Your task to perform on an android device: move an email to a new category in the gmail app Image 0: 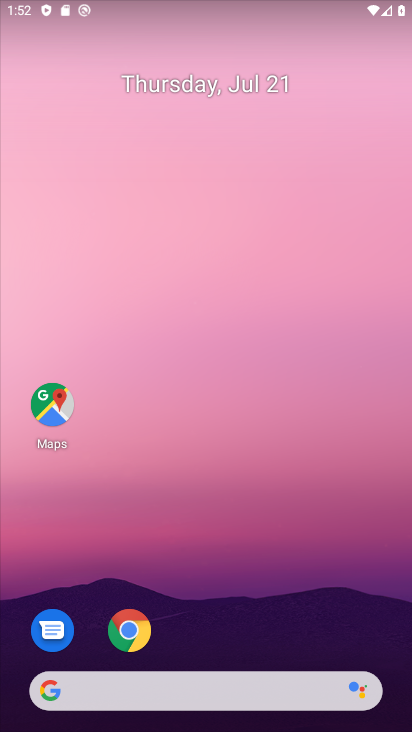
Step 0: drag from (234, 620) to (257, 36)
Your task to perform on an android device: move an email to a new category in the gmail app Image 1: 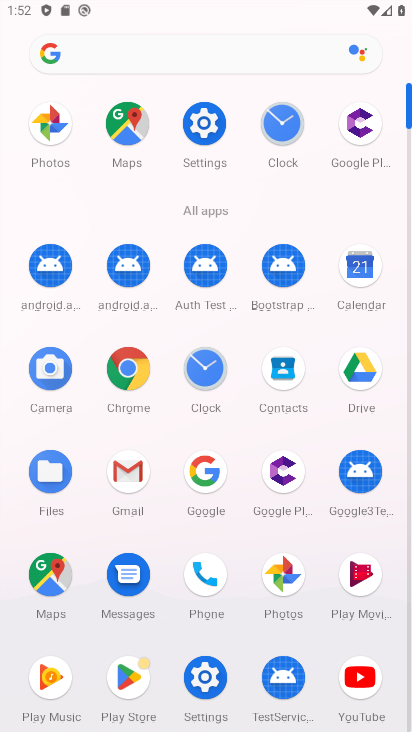
Step 1: click (143, 493)
Your task to perform on an android device: move an email to a new category in the gmail app Image 2: 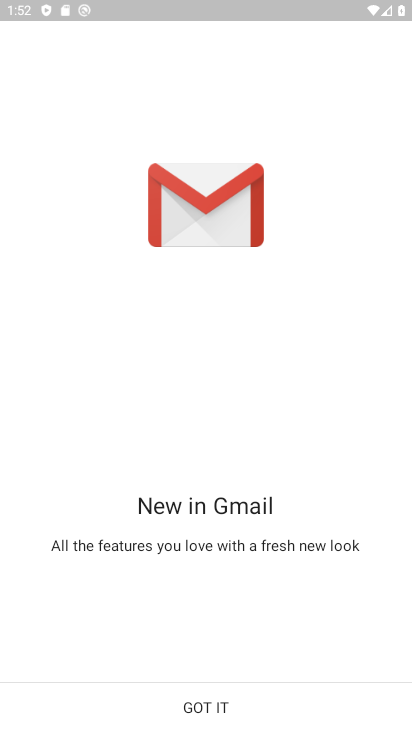
Step 2: click (138, 688)
Your task to perform on an android device: move an email to a new category in the gmail app Image 3: 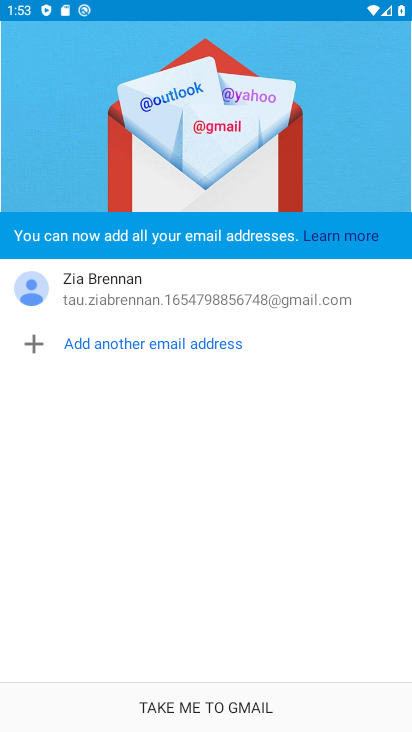
Step 3: click (241, 698)
Your task to perform on an android device: move an email to a new category in the gmail app Image 4: 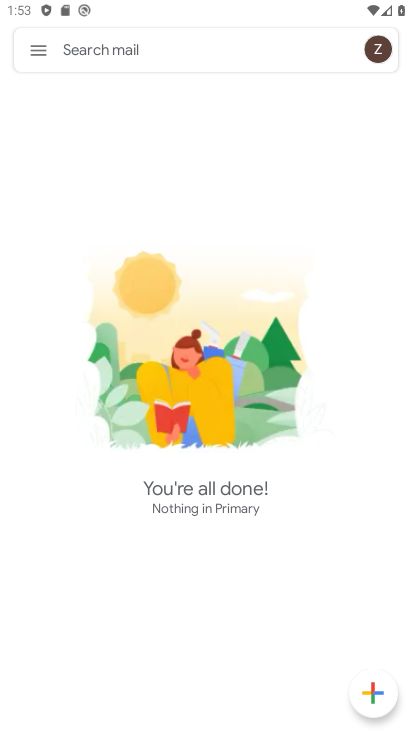
Step 4: task complete